Your task to perform on an android device: toggle location history Image 0: 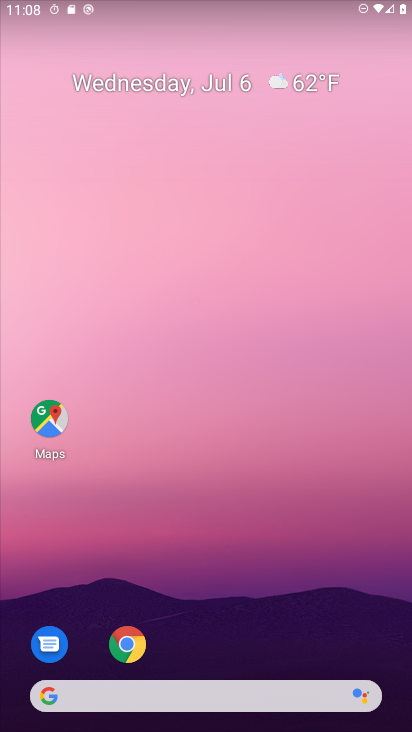
Step 0: press home button
Your task to perform on an android device: toggle location history Image 1: 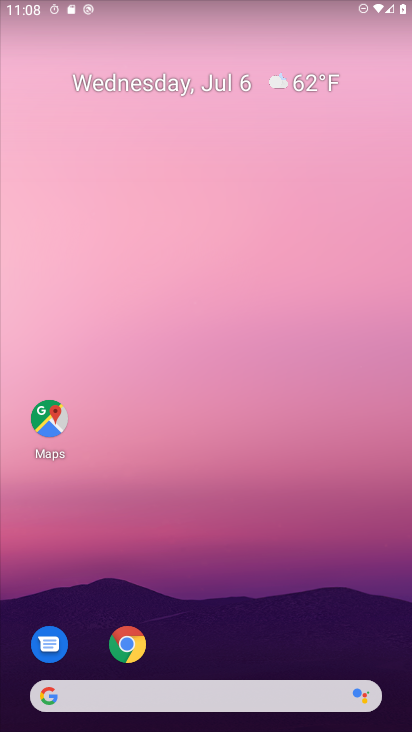
Step 1: drag from (273, 593) to (299, 45)
Your task to perform on an android device: toggle location history Image 2: 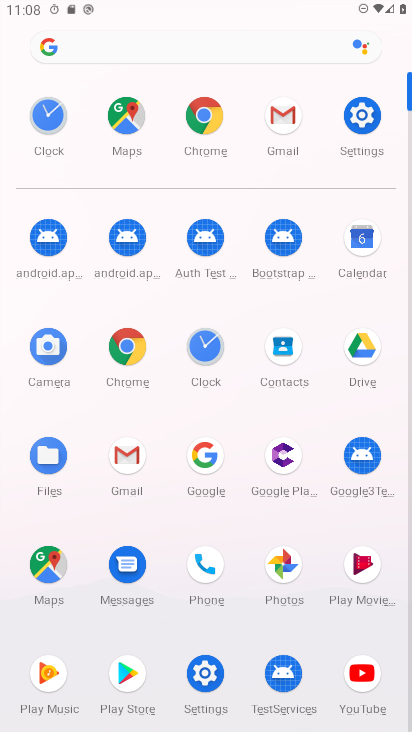
Step 2: click (363, 121)
Your task to perform on an android device: toggle location history Image 3: 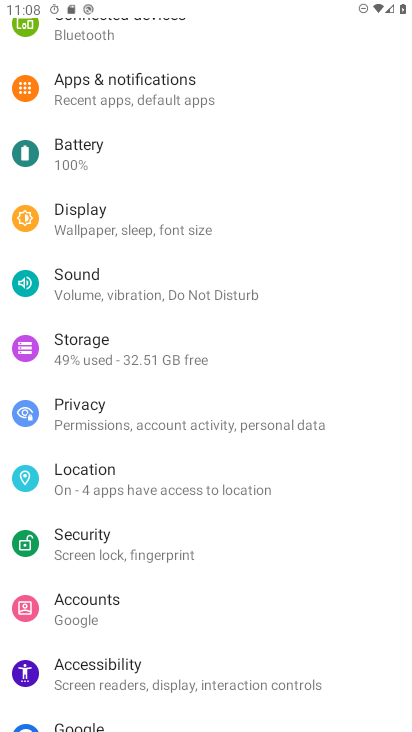
Step 3: click (80, 477)
Your task to perform on an android device: toggle location history Image 4: 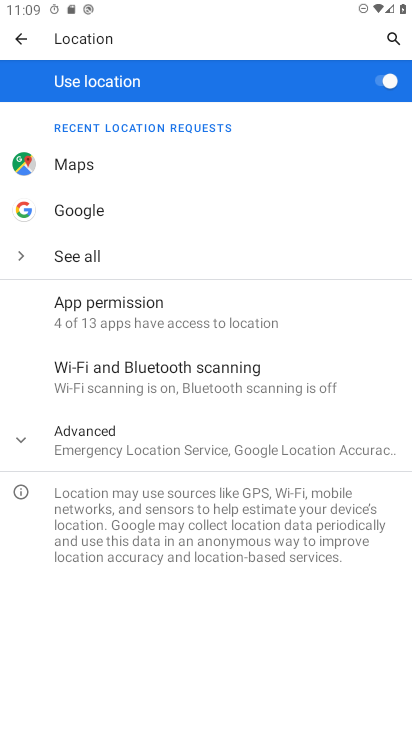
Step 4: click (71, 445)
Your task to perform on an android device: toggle location history Image 5: 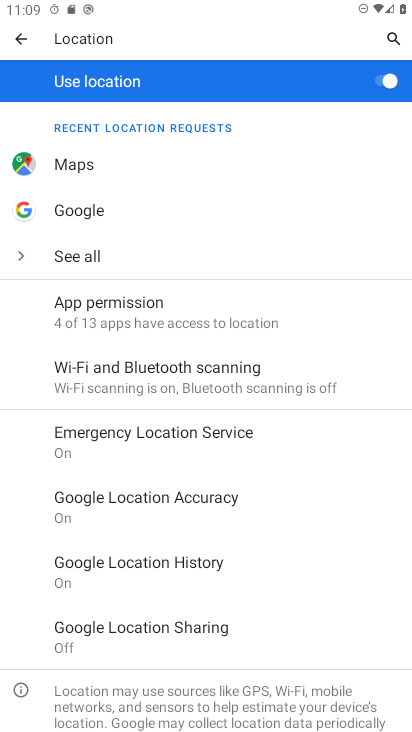
Step 5: click (153, 559)
Your task to perform on an android device: toggle location history Image 6: 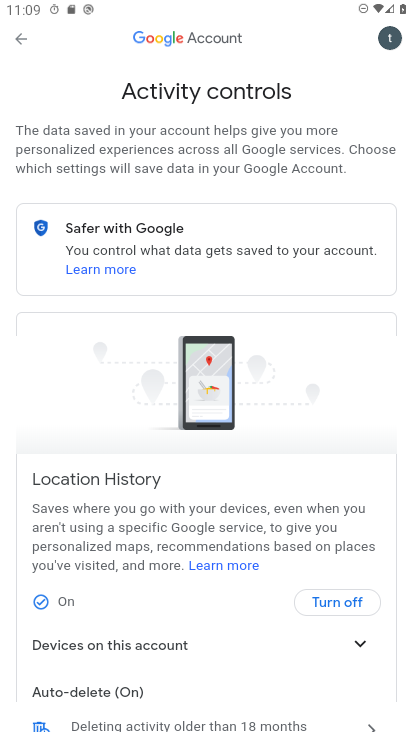
Step 6: click (317, 598)
Your task to perform on an android device: toggle location history Image 7: 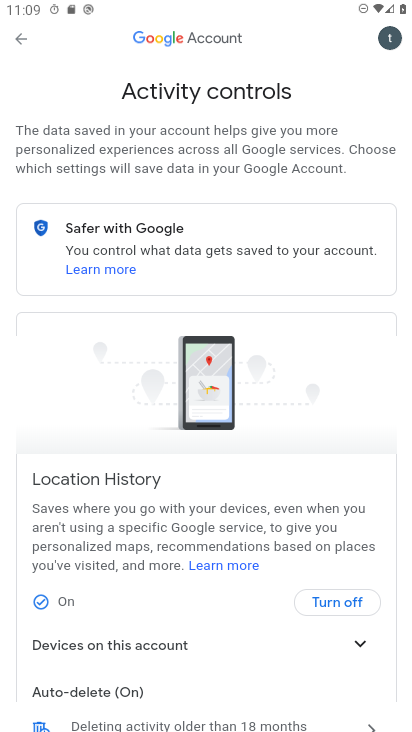
Step 7: click (40, 604)
Your task to perform on an android device: toggle location history Image 8: 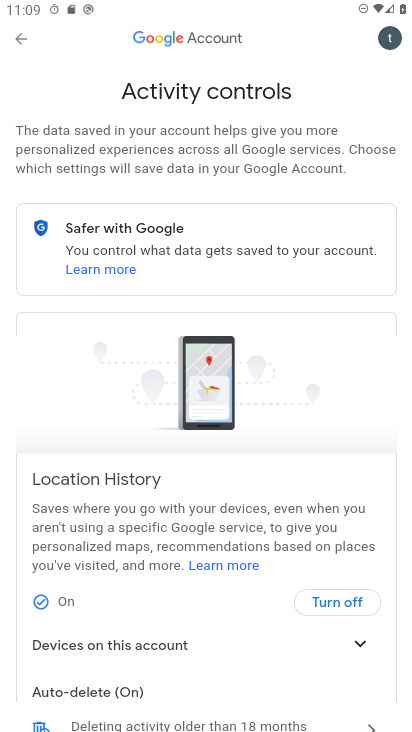
Step 8: drag from (240, 648) to (213, 232)
Your task to perform on an android device: toggle location history Image 9: 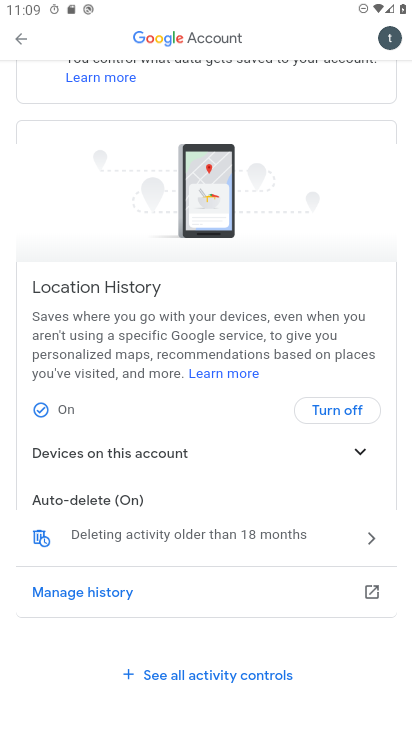
Step 9: click (346, 412)
Your task to perform on an android device: toggle location history Image 10: 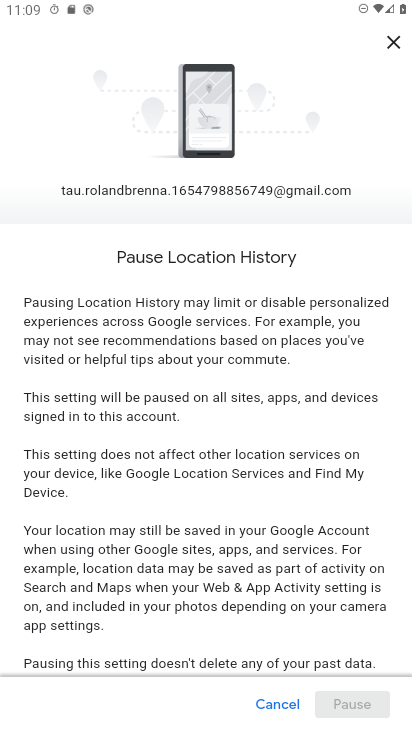
Step 10: click (346, 700)
Your task to perform on an android device: toggle location history Image 11: 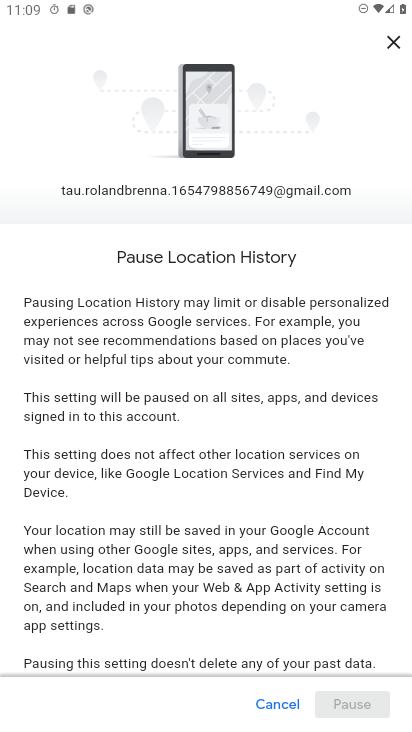
Step 11: click (389, 40)
Your task to perform on an android device: toggle location history Image 12: 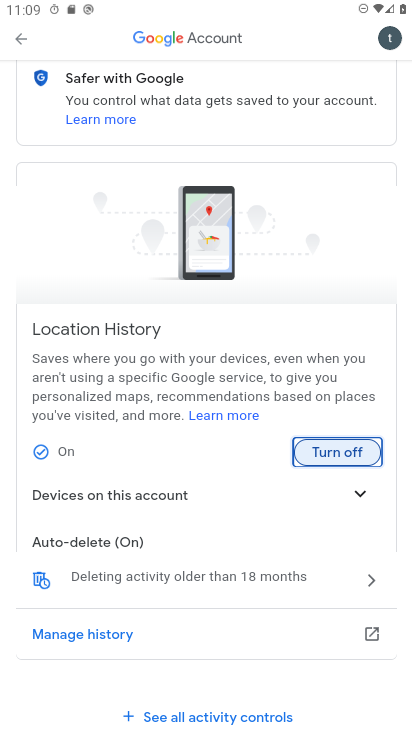
Step 12: click (65, 449)
Your task to perform on an android device: toggle location history Image 13: 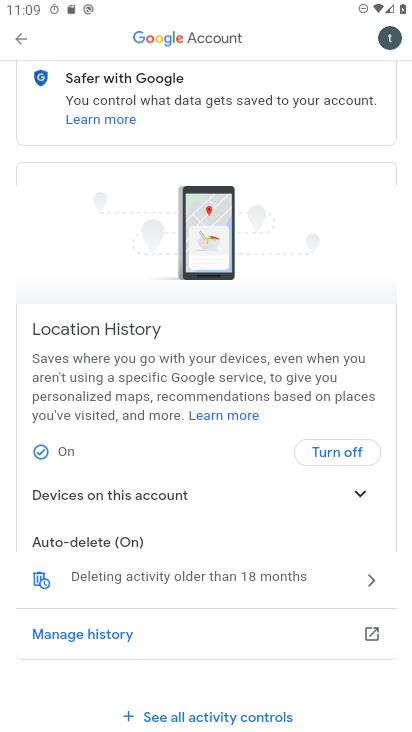
Step 13: click (326, 451)
Your task to perform on an android device: toggle location history Image 14: 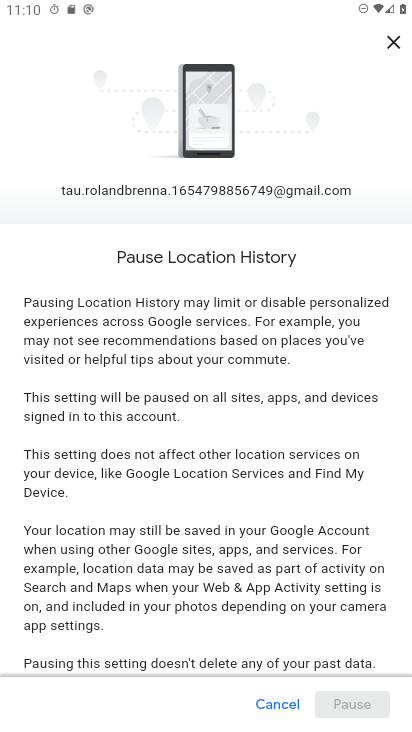
Step 14: click (353, 702)
Your task to perform on an android device: toggle location history Image 15: 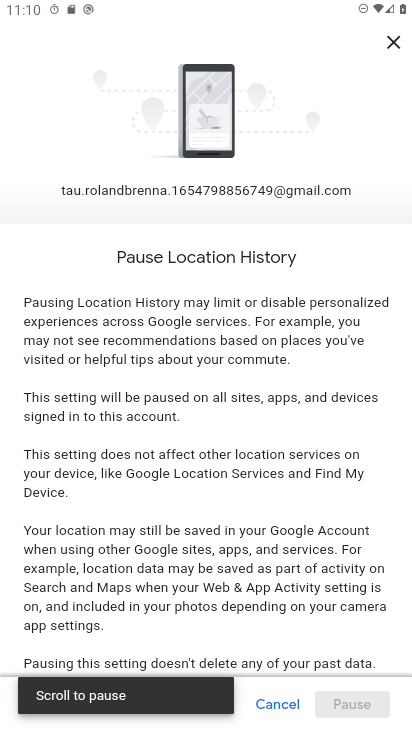
Step 15: click (392, 43)
Your task to perform on an android device: toggle location history Image 16: 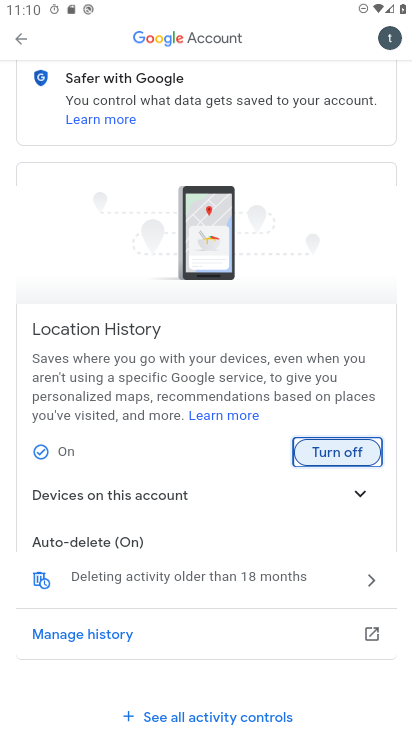
Step 16: task complete